Your task to perform on an android device: Go to Yahoo.com Image 0: 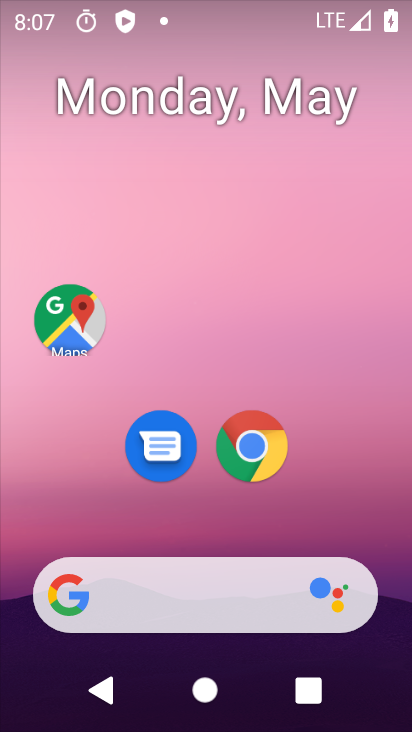
Step 0: click (246, 458)
Your task to perform on an android device: Go to Yahoo.com Image 1: 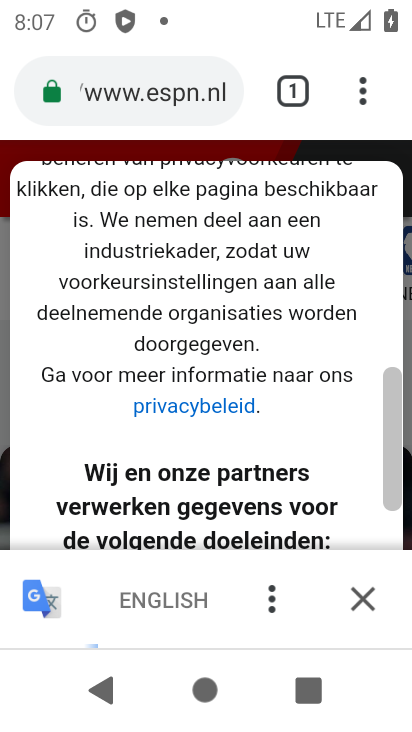
Step 1: click (122, 103)
Your task to perform on an android device: Go to Yahoo.com Image 2: 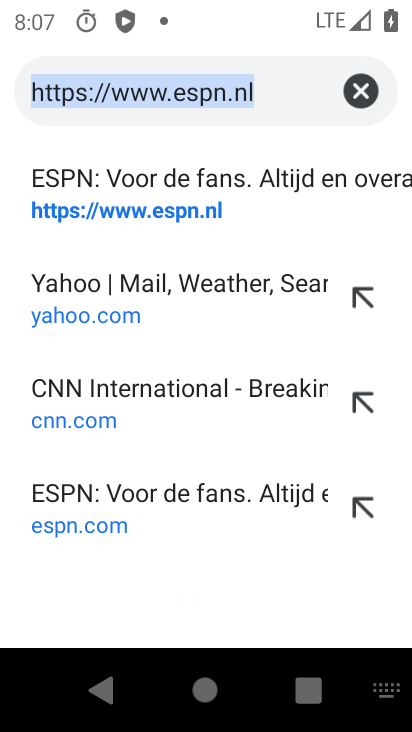
Step 2: click (62, 324)
Your task to perform on an android device: Go to Yahoo.com Image 3: 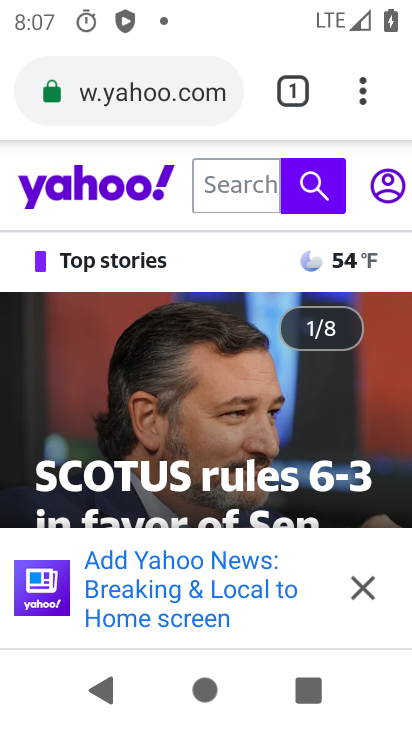
Step 3: task complete